Your task to perform on an android device: Open Yahoo.com Image 0: 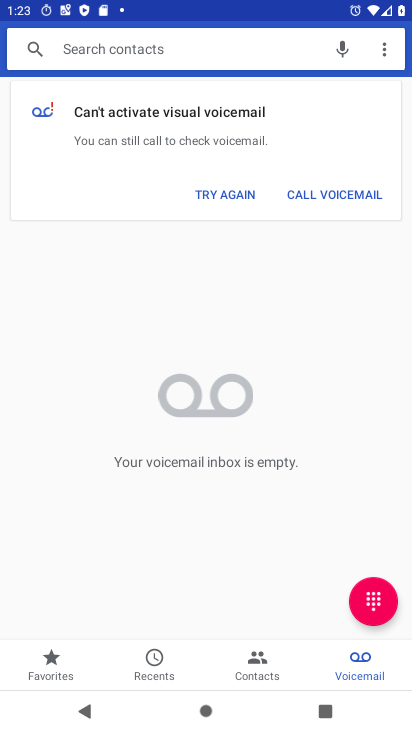
Step 0: press home button
Your task to perform on an android device: Open Yahoo.com Image 1: 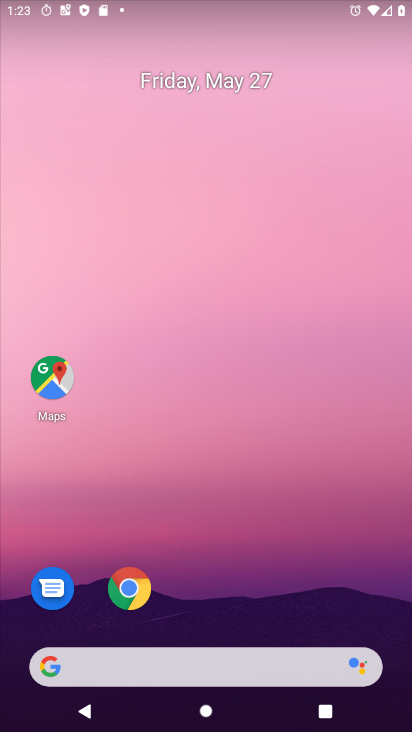
Step 1: drag from (216, 621) to (220, 53)
Your task to perform on an android device: Open Yahoo.com Image 2: 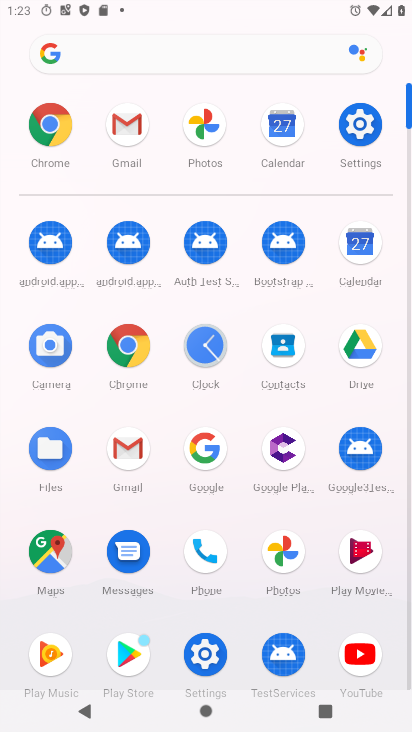
Step 2: click (49, 121)
Your task to perform on an android device: Open Yahoo.com Image 3: 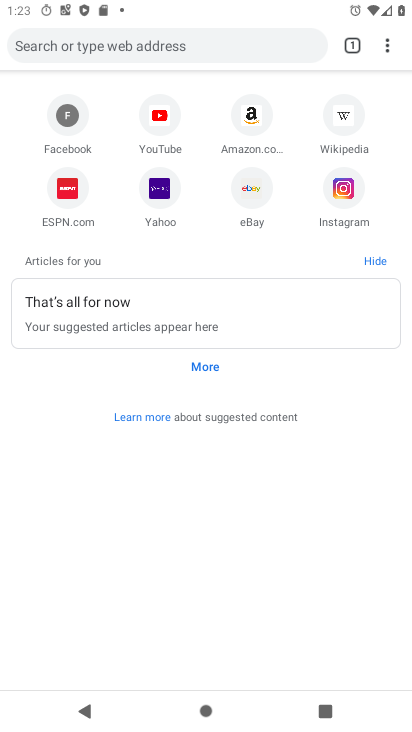
Step 3: click (158, 185)
Your task to perform on an android device: Open Yahoo.com Image 4: 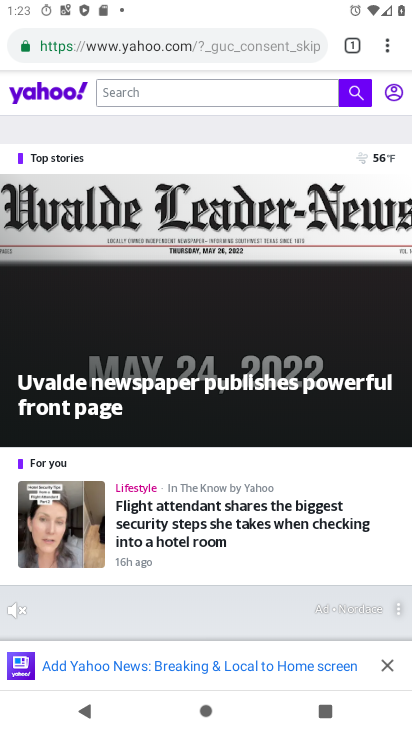
Step 4: task complete